Your task to perform on an android device: change notifications settings Image 0: 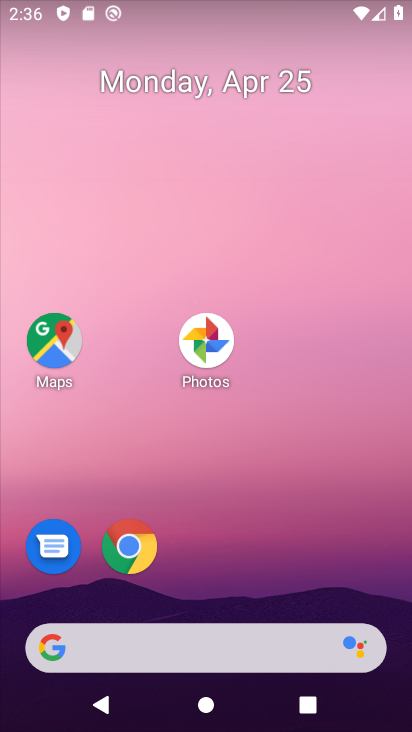
Step 0: drag from (304, 592) to (304, 189)
Your task to perform on an android device: change notifications settings Image 1: 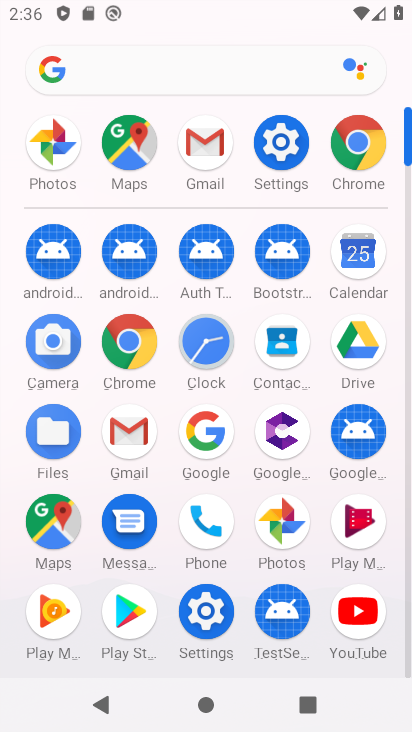
Step 1: click (283, 148)
Your task to perform on an android device: change notifications settings Image 2: 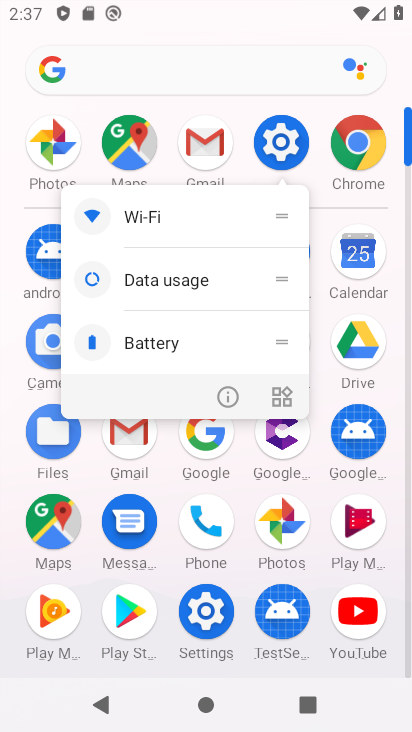
Step 2: click (281, 145)
Your task to perform on an android device: change notifications settings Image 3: 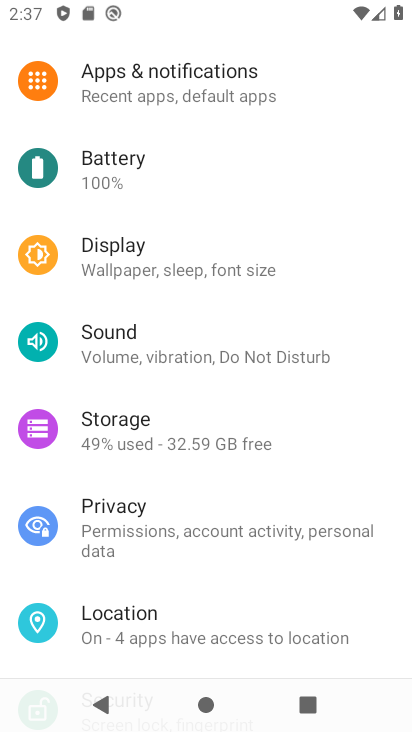
Step 3: drag from (224, 67) to (156, 334)
Your task to perform on an android device: change notifications settings Image 4: 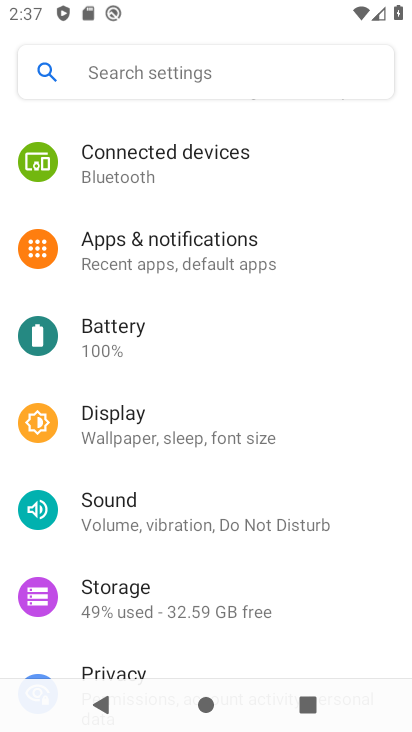
Step 4: click (166, 237)
Your task to perform on an android device: change notifications settings Image 5: 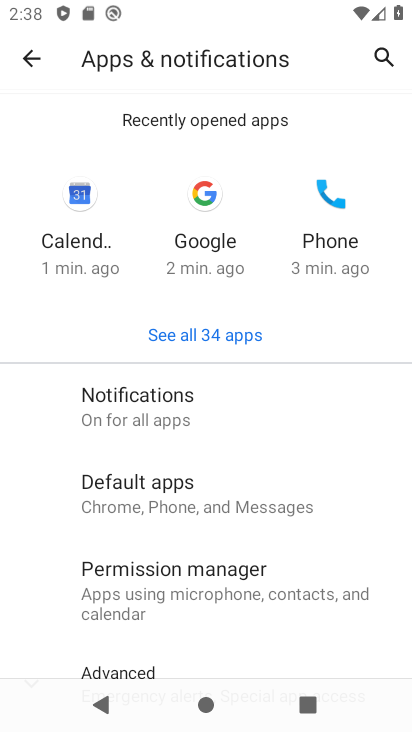
Step 5: click (148, 398)
Your task to perform on an android device: change notifications settings Image 6: 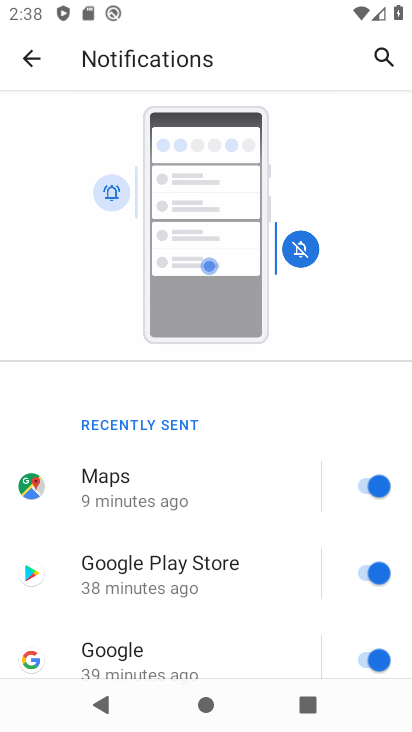
Step 6: drag from (215, 544) to (335, 127)
Your task to perform on an android device: change notifications settings Image 7: 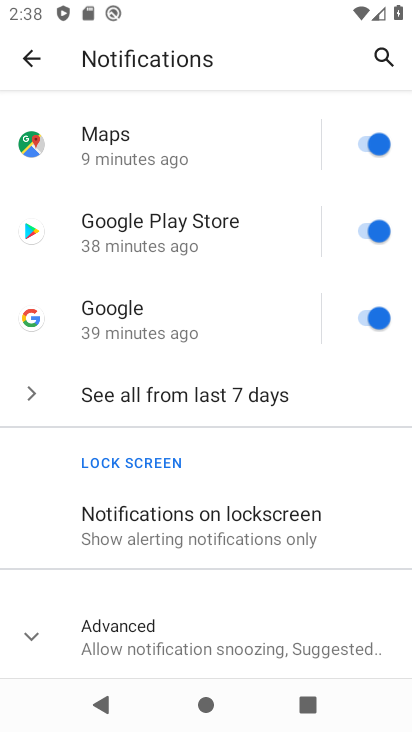
Step 7: click (244, 389)
Your task to perform on an android device: change notifications settings Image 8: 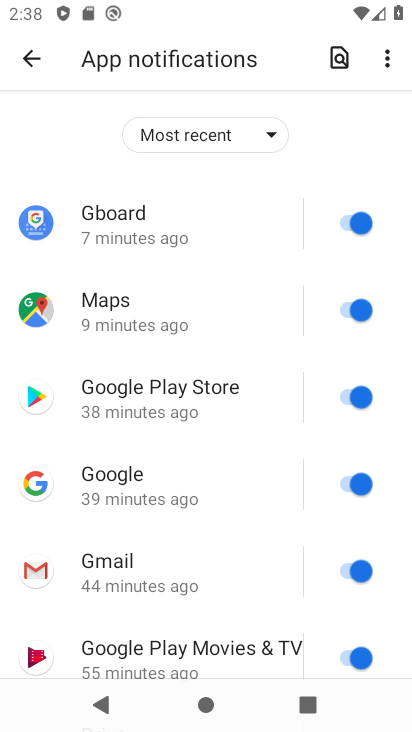
Step 8: click (361, 217)
Your task to perform on an android device: change notifications settings Image 9: 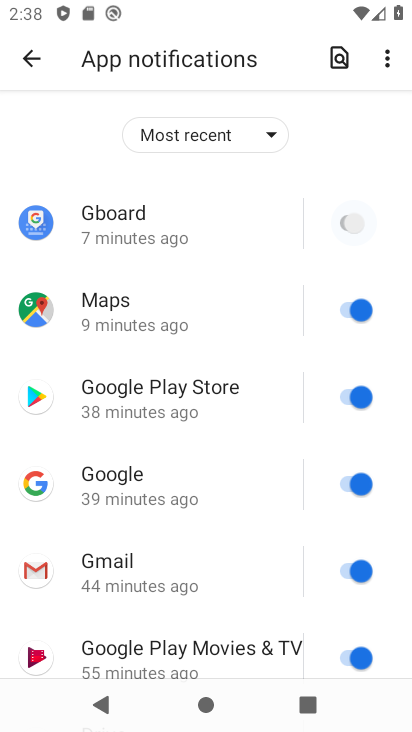
Step 9: click (347, 312)
Your task to perform on an android device: change notifications settings Image 10: 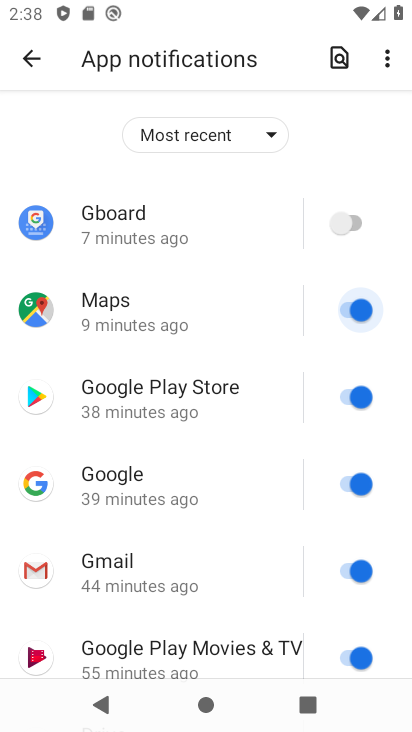
Step 10: click (347, 388)
Your task to perform on an android device: change notifications settings Image 11: 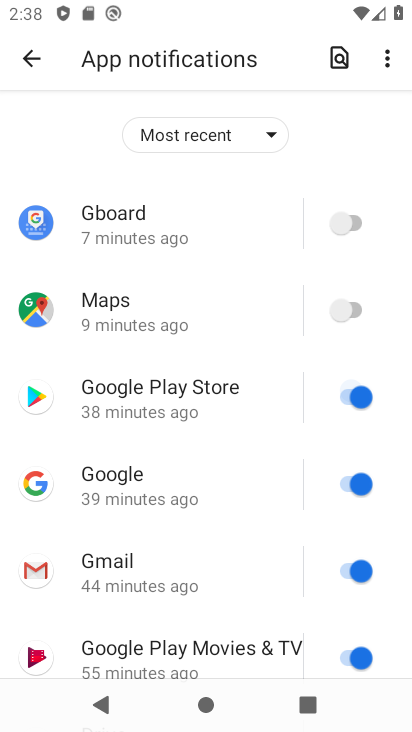
Step 11: click (339, 494)
Your task to perform on an android device: change notifications settings Image 12: 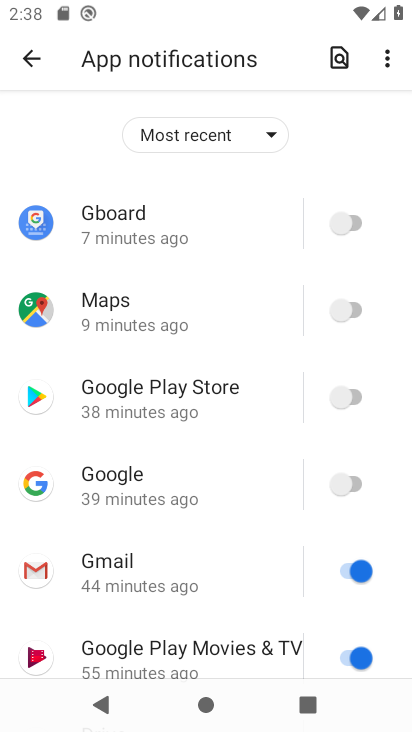
Step 12: click (344, 558)
Your task to perform on an android device: change notifications settings Image 13: 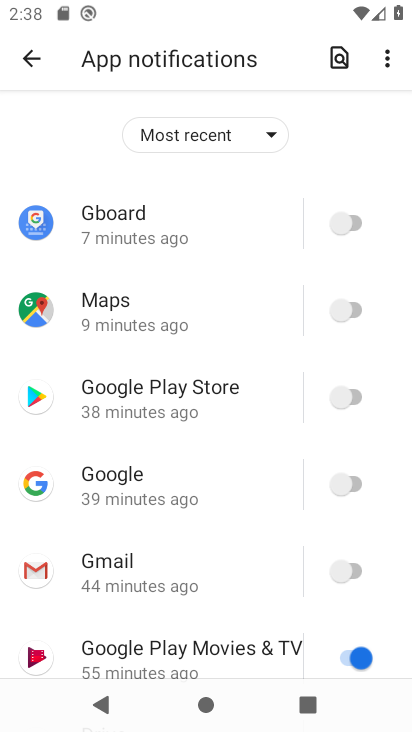
Step 13: drag from (283, 602) to (333, 271)
Your task to perform on an android device: change notifications settings Image 14: 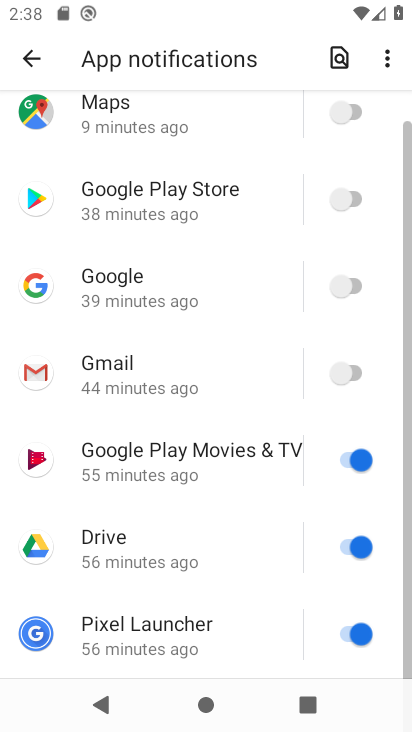
Step 14: click (345, 462)
Your task to perform on an android device: change notifications settings Image 15: 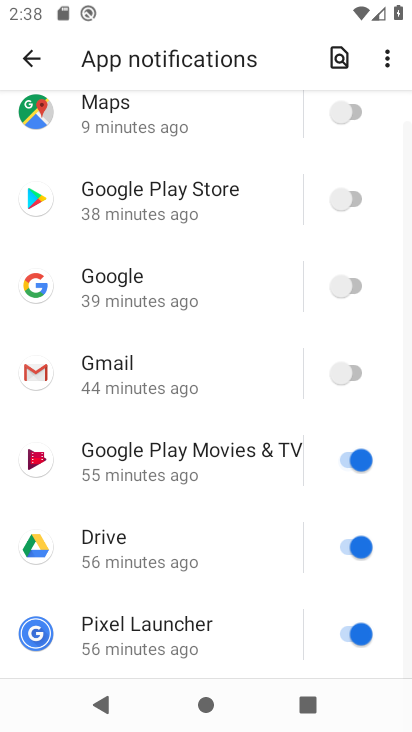
Step 15: click (341, 546)
Your task to perform on an android device: change notifications settings Image 16: 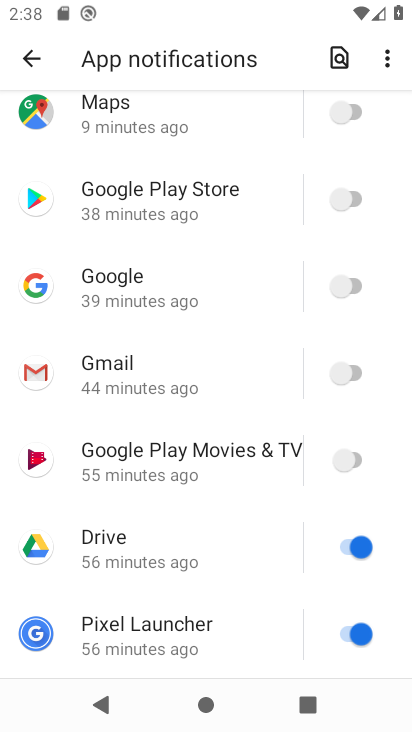
Step 16: click (348, 612)
Your task to perform on an android device: change notifications settings Image 17: 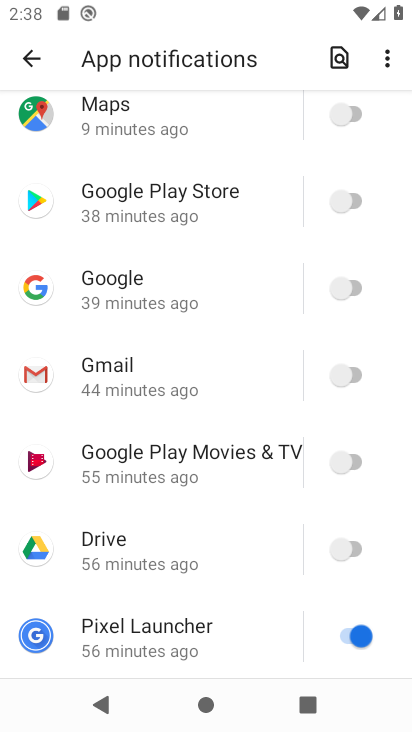
Step 17: drag from (278, 589) to (316, 302)
Your task to perform on an android device: change notifications settings Image 18: 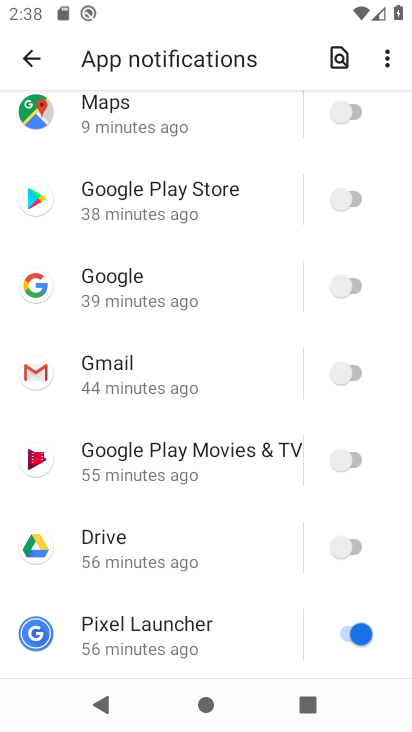
Step 18: click (343, 639)
Your task to perform on an android device: change notifications settings Image 19: 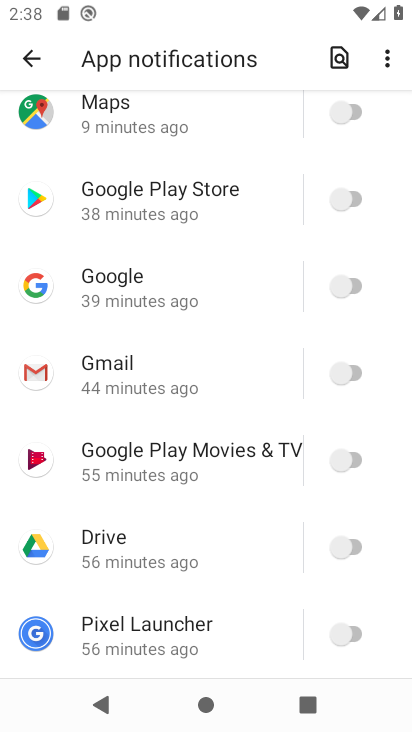
Step 19: task complete